Your task to perform on an android device: Open sound settings Image 0: 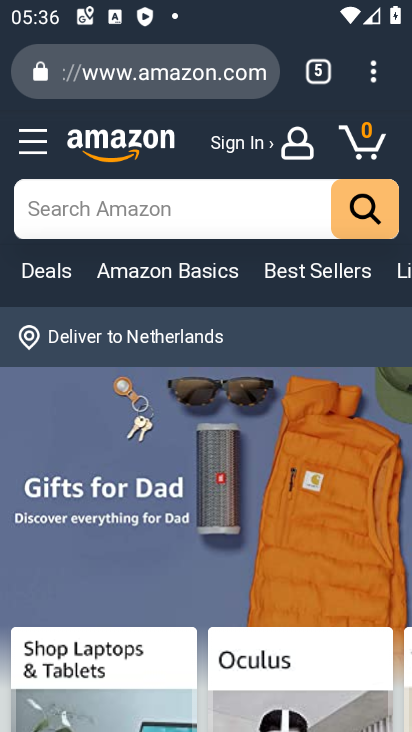
Step 0: press home button
Your task to perform on an android device: Open sound settings Image 1: 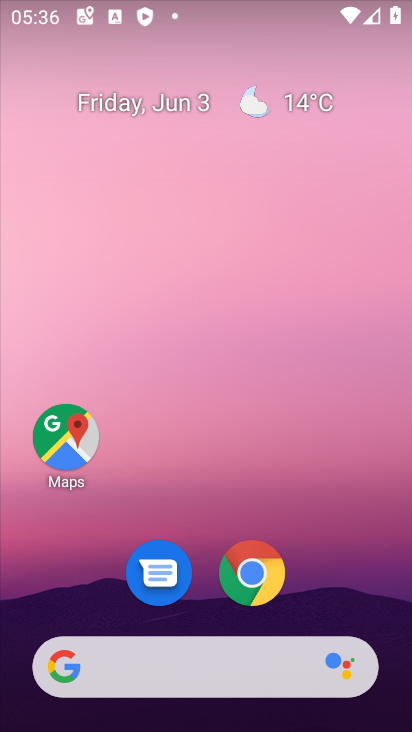
Step 1: drag from (261, 652) to (251, 223)
Your task to perform on an android device: Open sound settings Image 2: 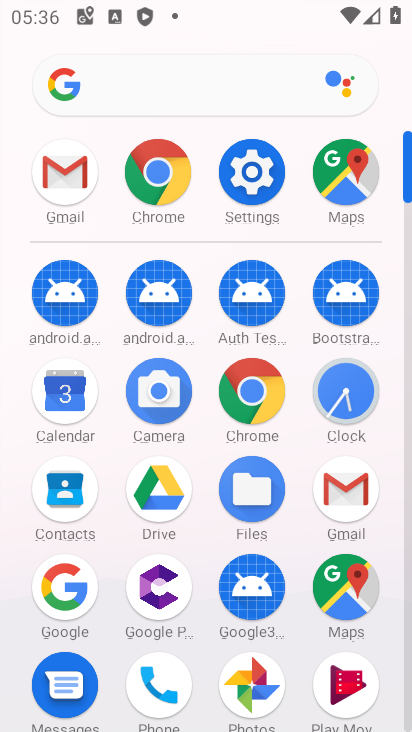
Step 2: click (261, 194)
Your task to perform on an android device: Open sound settings Image 3: 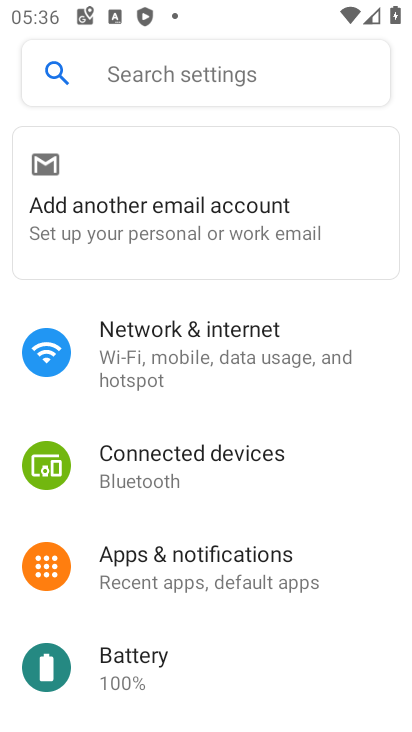
Step 3: drag from (165, 677) to (232, 197)
Your task to perform on an android device: Open sound settings Image 4: 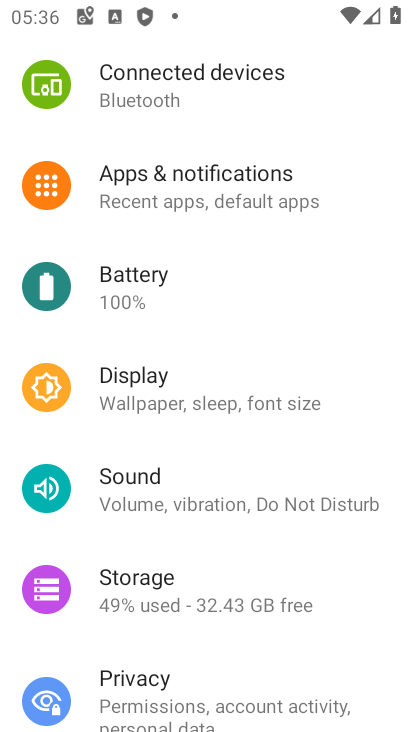
Step 4: click (199, 484)
Your task to perform on an android device: Open sound settings Image 5: 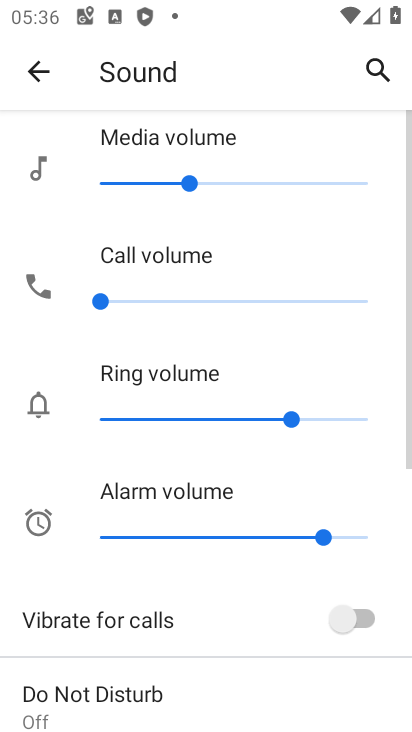
Step 5: task complete